Your task to perform on an android device: Open display settings Image 0: 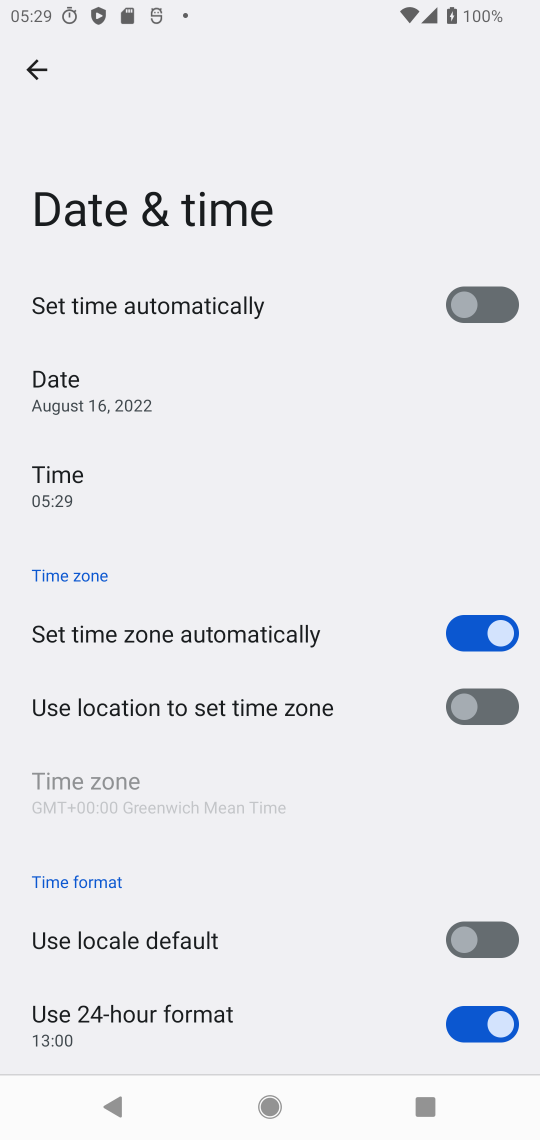
Step 0: press home button
Your task to perform on an android device: Open display settings Image 1: 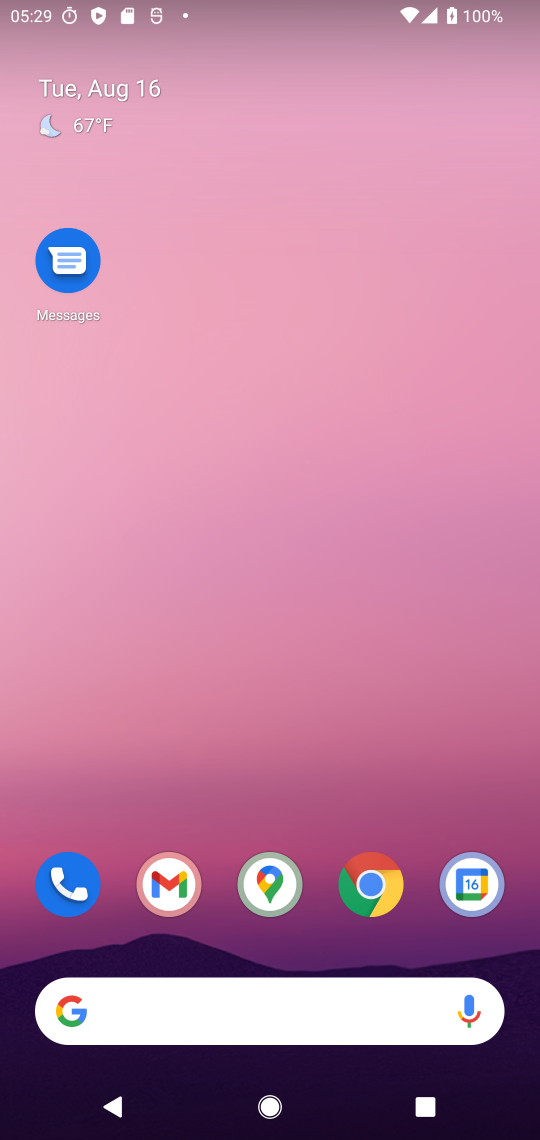
Step 1: drag from (58, 1075) to (235, 313)
Your task to perform on an android device: Open display settings Image 2: 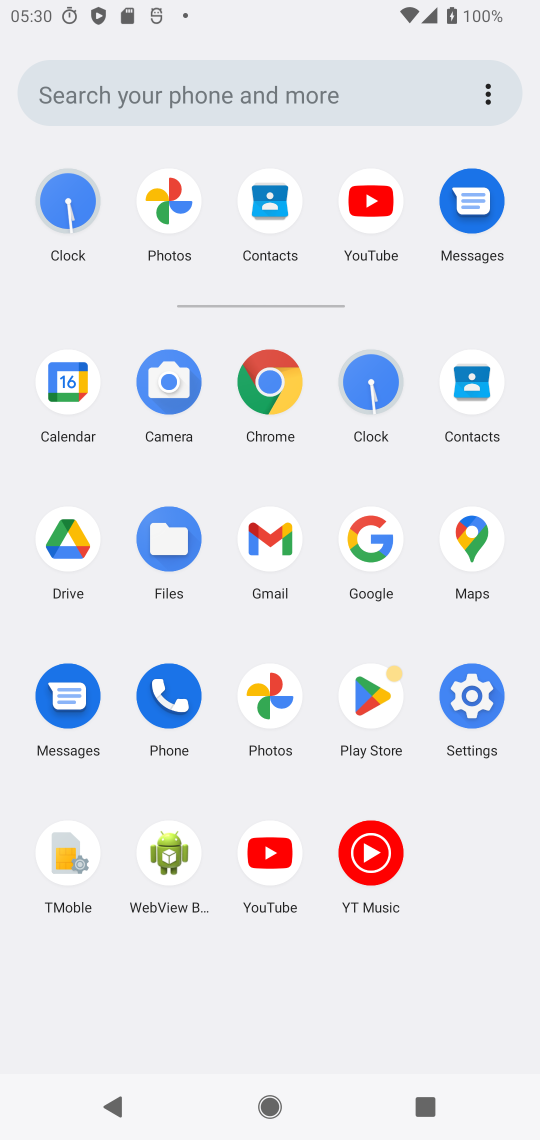
Step 2: click (467, 696)
Your task to perform on an android device: Open display settings Image 3: 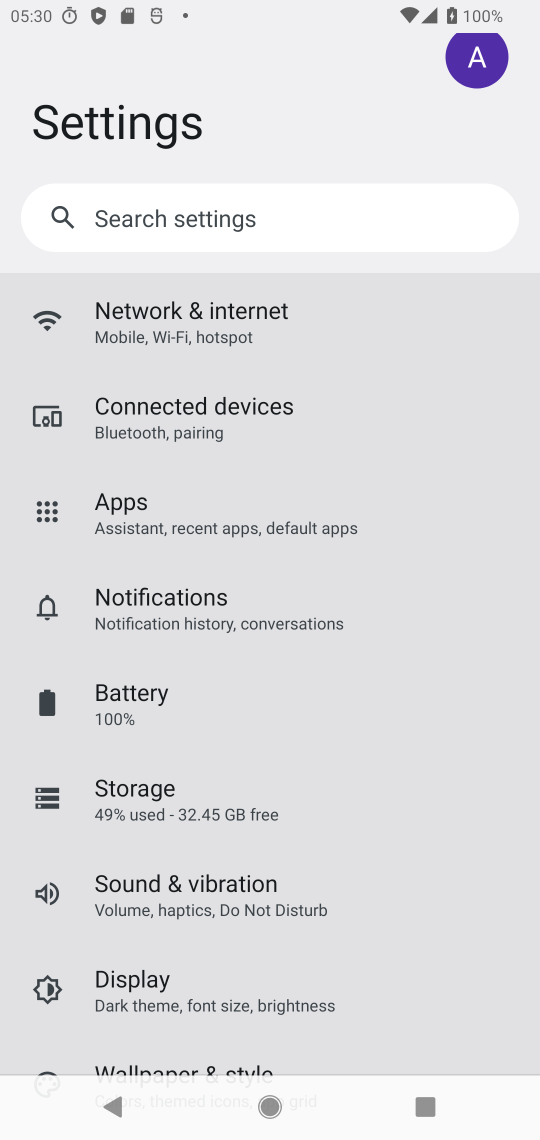
Step 3: click (146, 989)
Your task to perform on an android device: Open display settings Image 4: 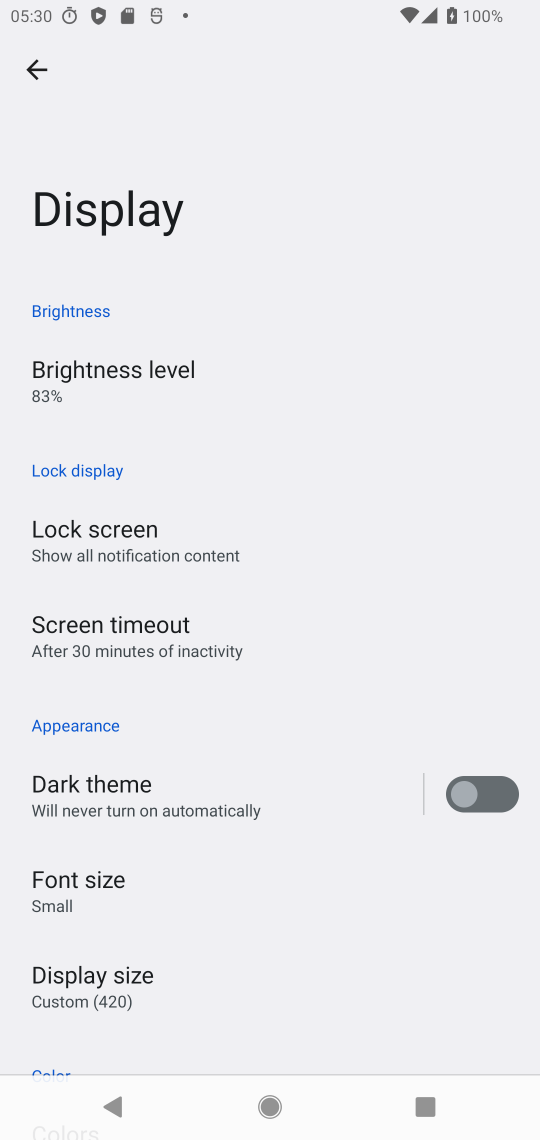
Step 4: task complete